Your task to perform on an android device: Open wifi settings Image 0: 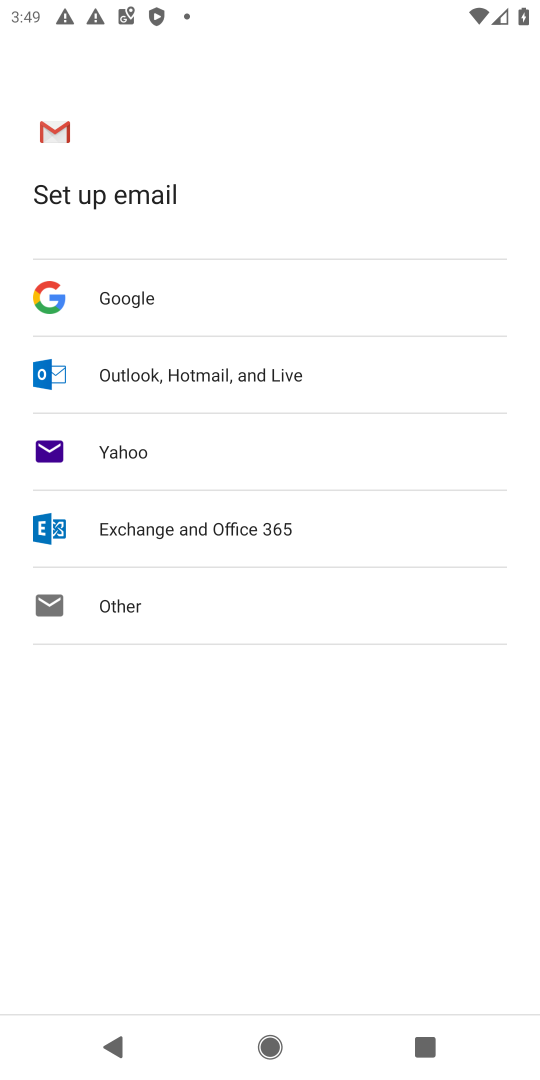
Step 0: press home button
Your task to perform on an android device: Open wifi settings Image 1: 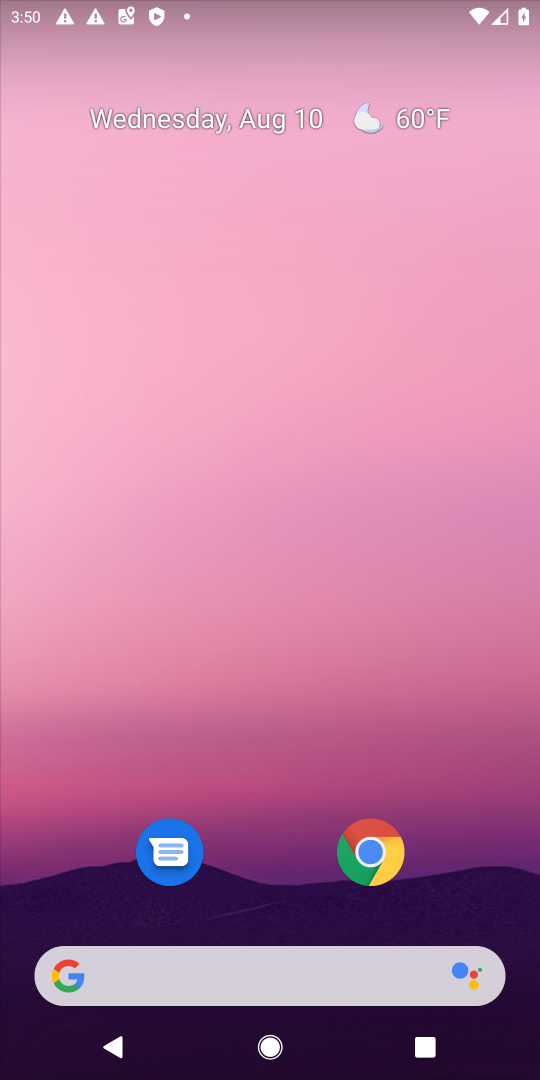
Step 1: drag from (253, 872) to (318, 120)
Your task to perform on an android device: Open wifi settings Image 2: 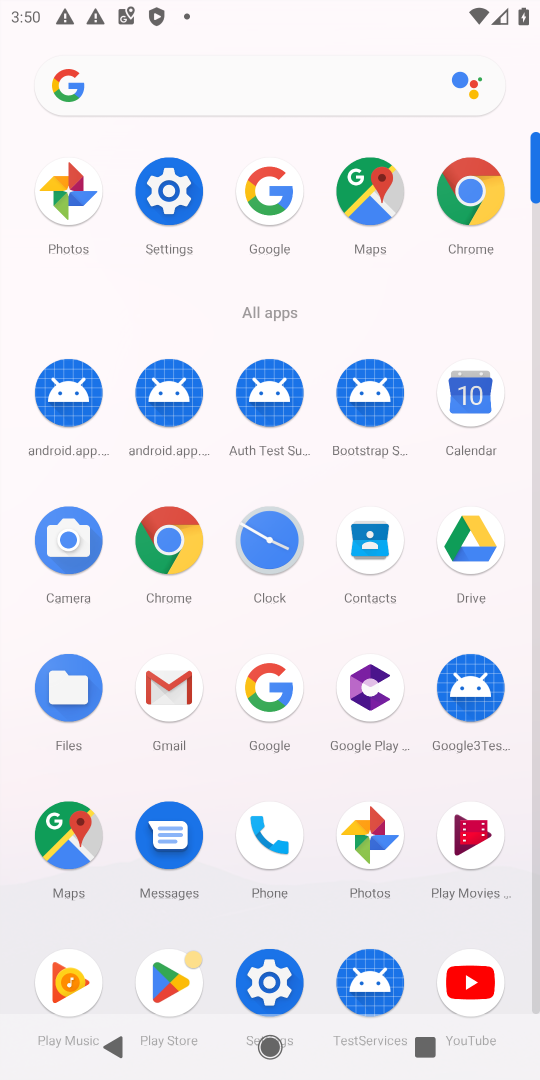
Step 2: click (263, 988)
Your task to perform on an android device: Open wifi settings Image 3: 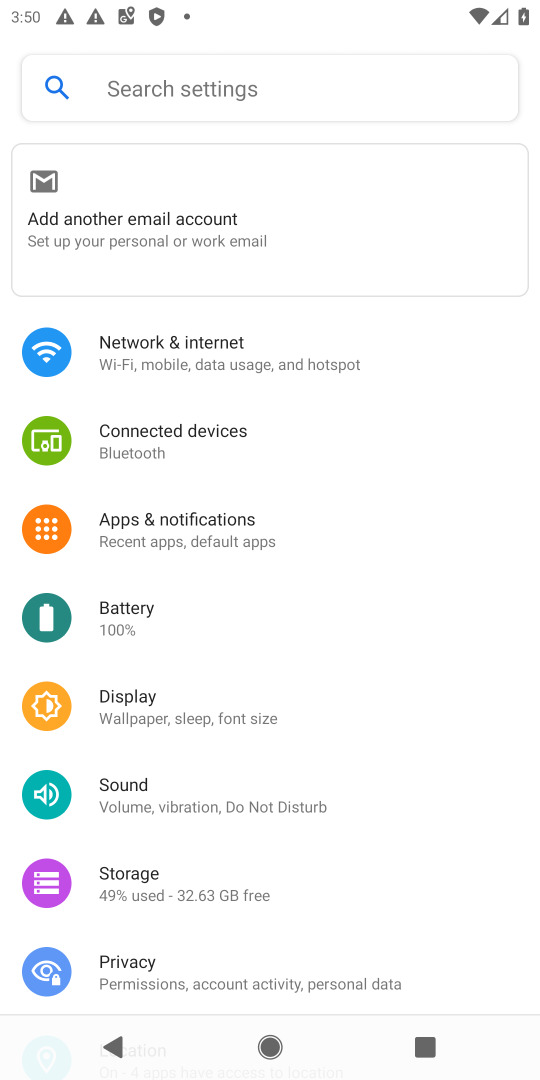
Step 3: click (186, 353)
Your task to perform on an android device: Open wifi settings Image 4: 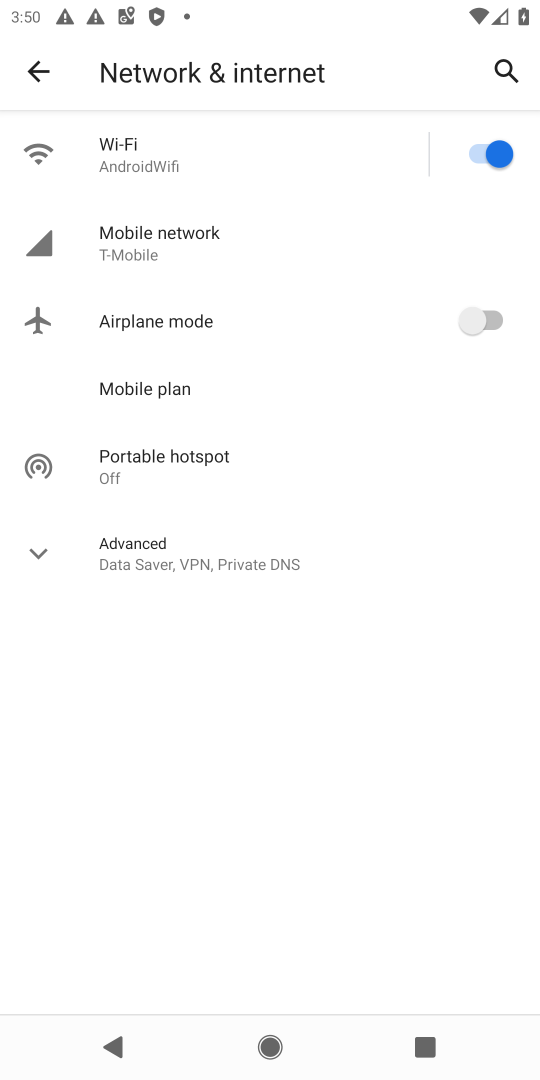
Step 4: click (168, 134)
Your task to perform on an android device: Open wifi settings Image 5: 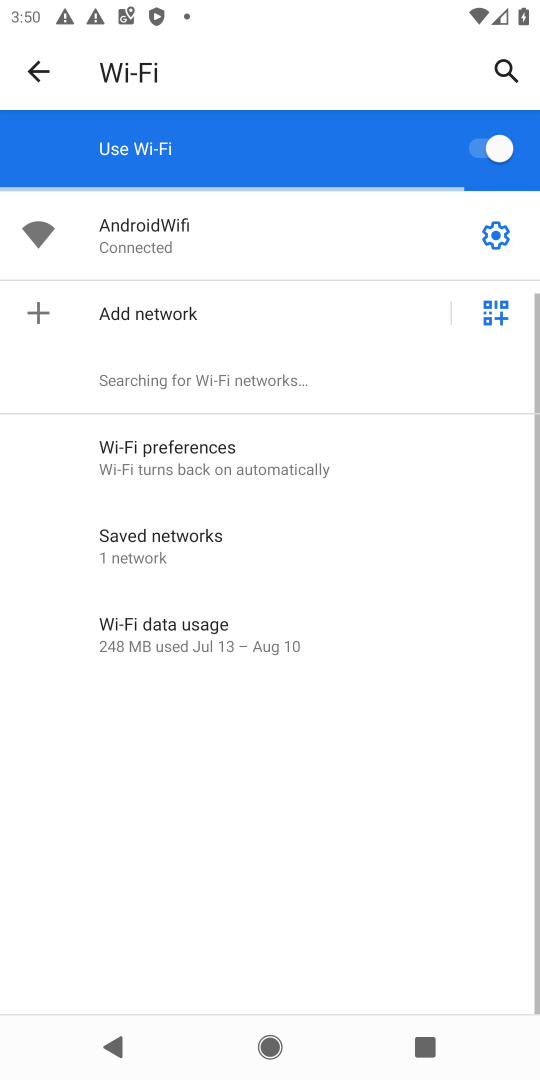
Step 5: click (512, 231)
Your task to perform on an android device: Open wifi settings Image 6: 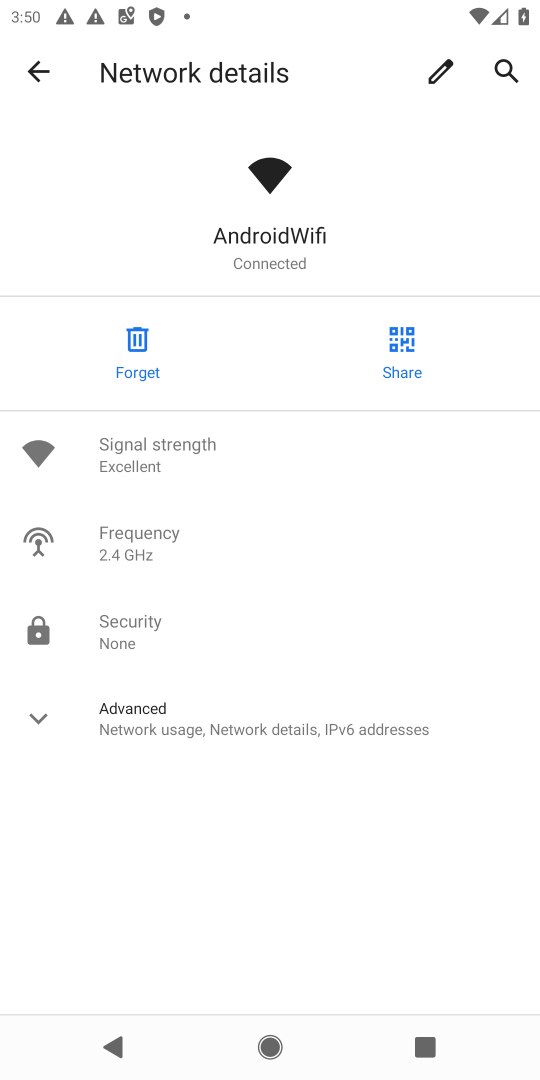
Step 6: task complete